Your task to perform on an android device: see creations saved in the google photos Image 0: 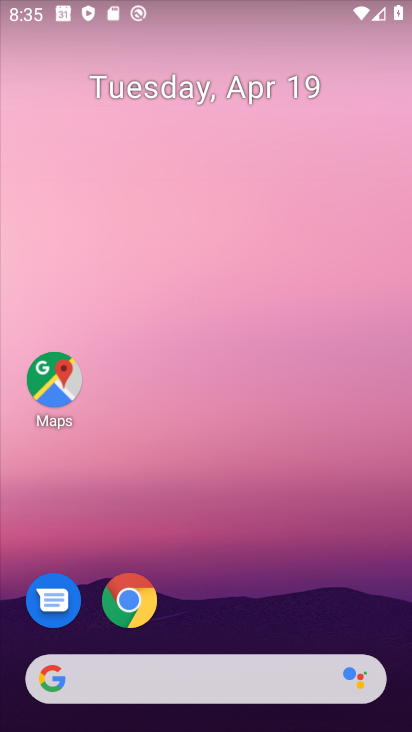
Step 0: drag from (272, 610) to (262, 38)
Your task to perform on an android device: see creations saved in the google photos Image 1: 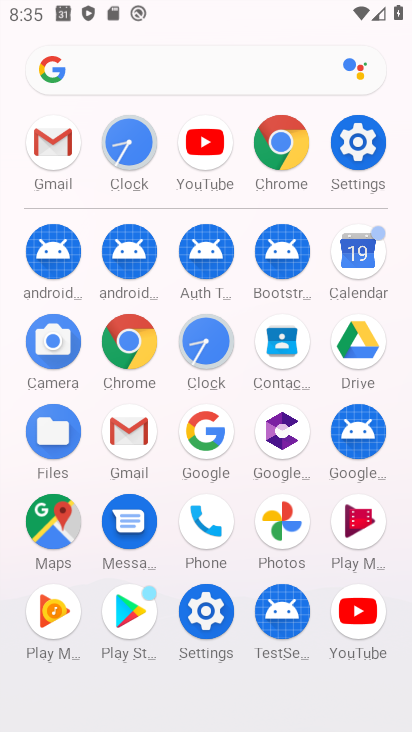
Step 1: click (267, 511)
Your task to perform on an android device: see creations saved in the google photos Image 2: 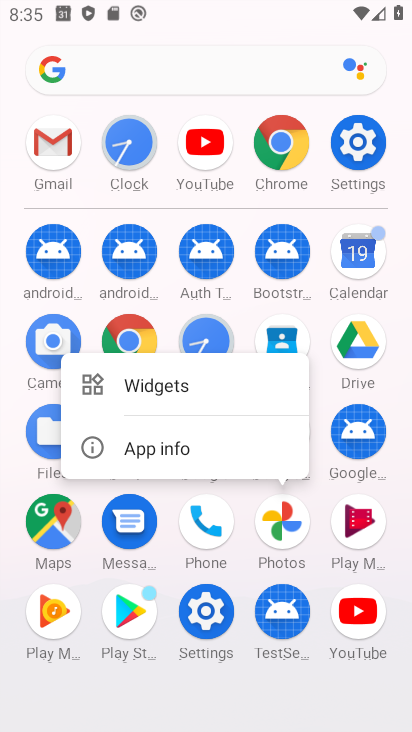
Step 2: click (289, 524)
Your task to perform on an android device: see creations saved in the google photos Image 3: 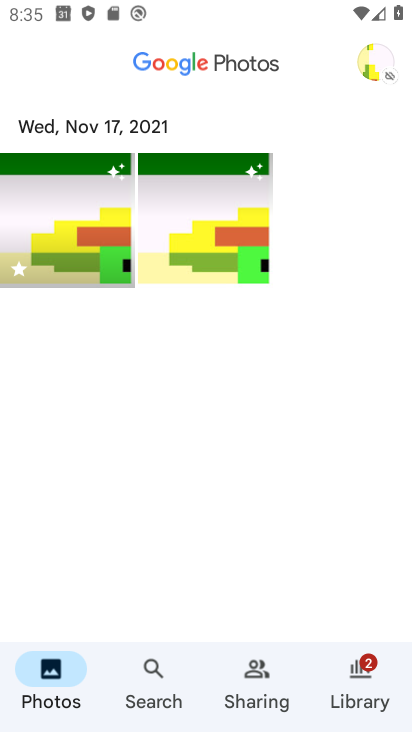
Step 3: click (377, 54)
Your task to perform on an android device: see creations saved in the google photos Image 4: 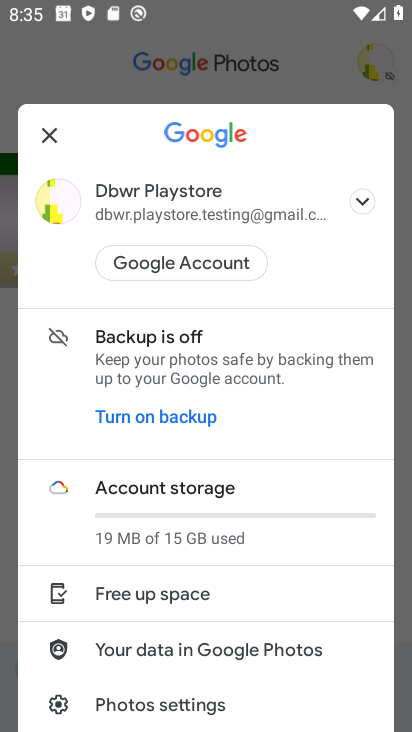
Step 4: press back button
Your task to perform on an android device: see creations saved in the google photos Image 5: 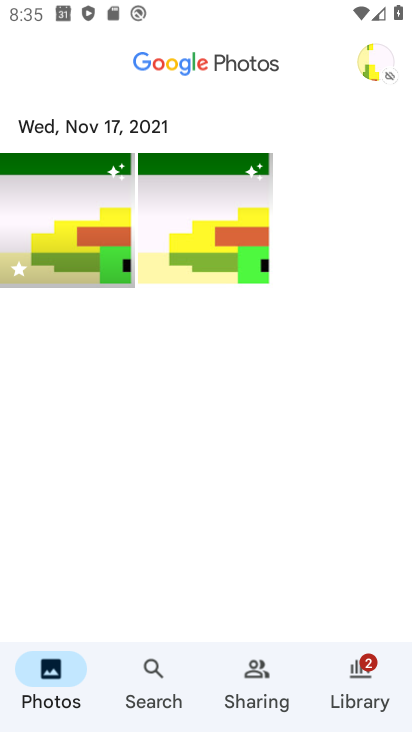
Step 5: click (131, 686)
Your task to perform on an android device: see creations saved in the google photos Image 6: 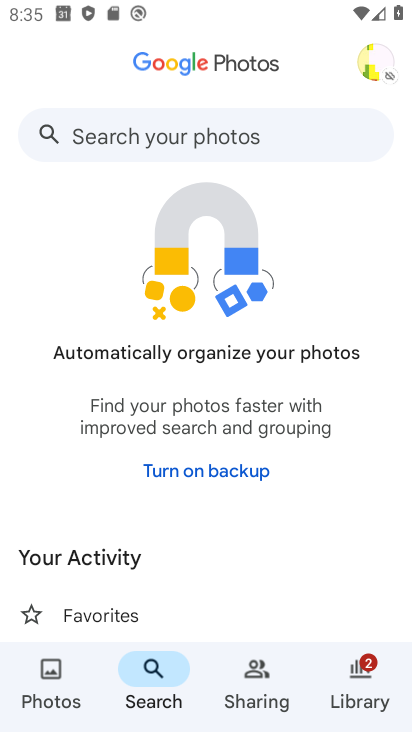
Step 6: click (169, 140)
Your task to perform on an android device: see creations saved in the google photos Image 7: 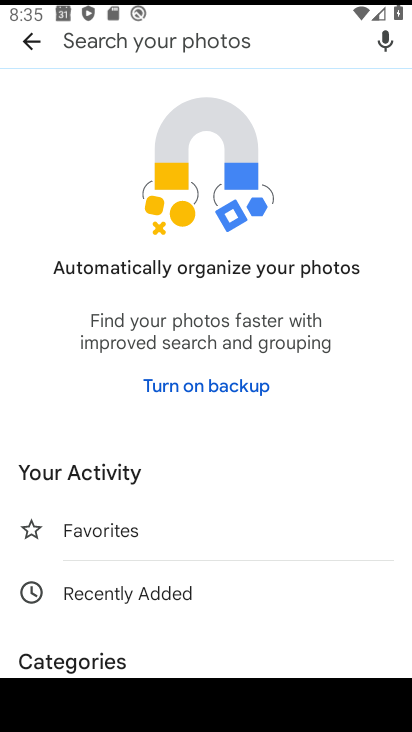
Step 7: drag from (147, 600) to (214, 180)
Your task to perform on an android device: see creations saved in the google photos Image 8: 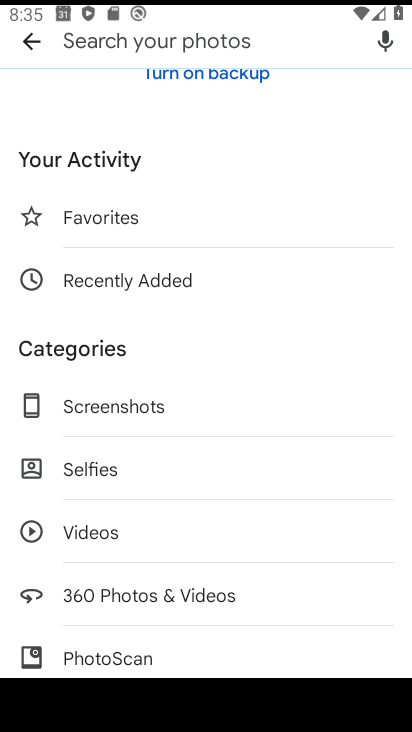
Step 8: drag from (98, 559) to (158, 202)
Your task to perform on an android device: see creations saved in the google photos Image 9: 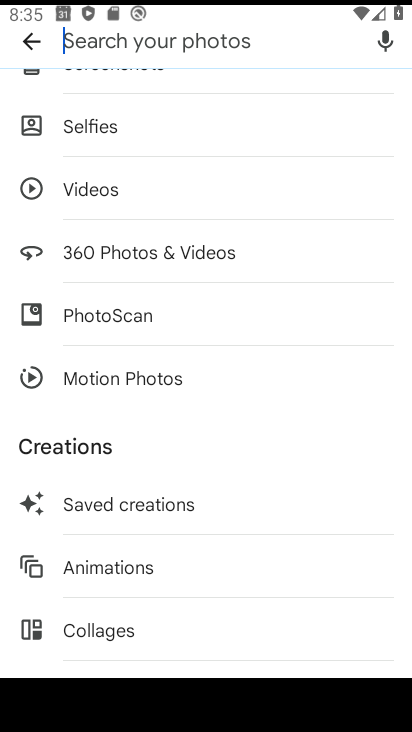
Step 9: drag from (113, 613) to (109, 268)
Your task to perform on an android device: see creations saved in the google photos Image 10: 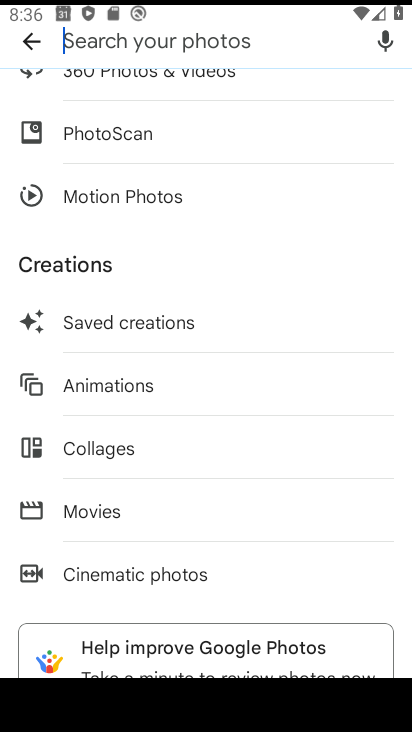
Step 10: click (177, 306)
Your task to perform on an android device: see creations saved in the google photos Image 11: 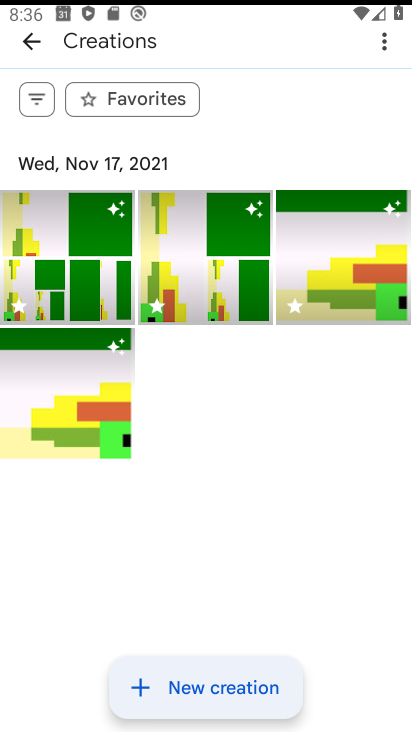
Step 11: task complete